Your task to perform on an android device: change the clock style Image 0: 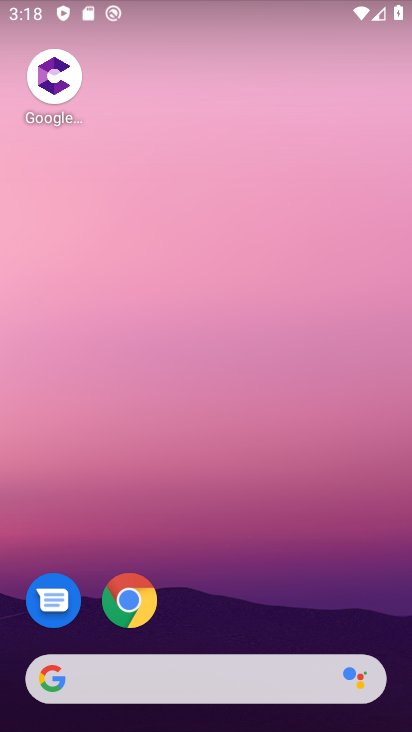
Step 0: drag from (236, 369) to (361, 11)
Your task to perform on an android device: change the clock style Image 1: 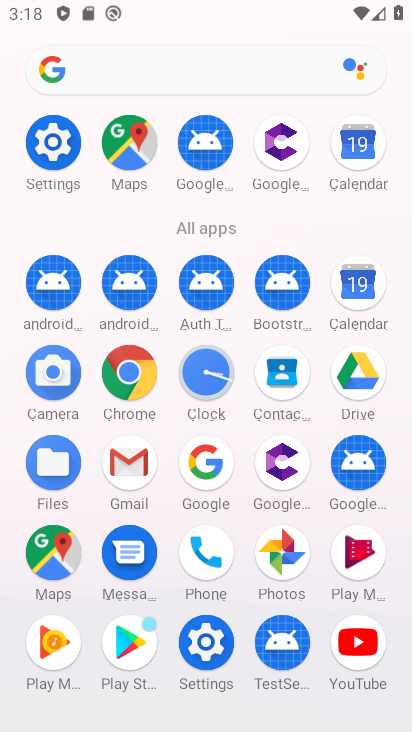
Step 1: click (205, 359)
Your task to perform on an android device: change the clock style Image 2: 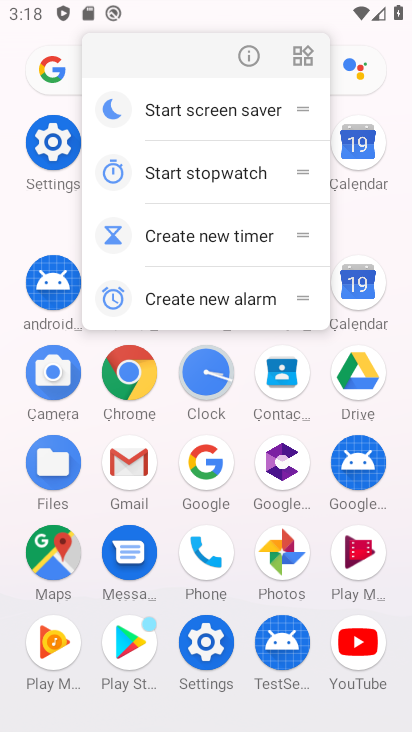
Step 2: click (197, 383)
Your task to perform on an android device: change the clock style Image 3: 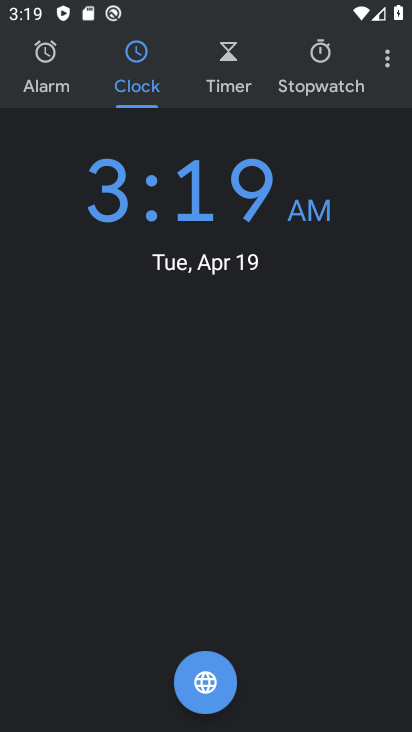
Step 3: click (385, 61)
Your task to perform on an android device: change the clock style Image 4: 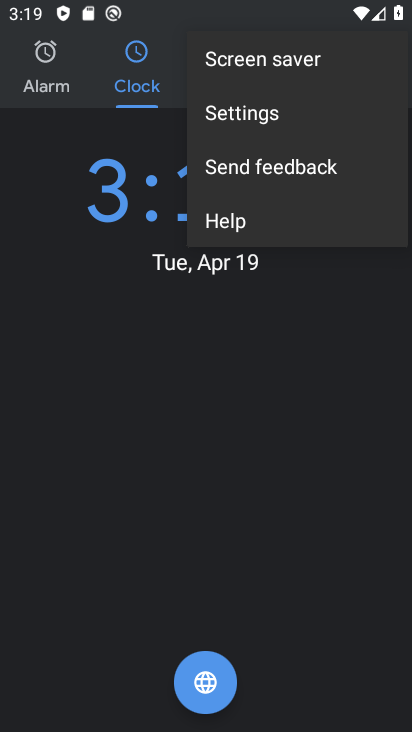
Step 4: click (280, 124)
Your task to perform on an android device: change the clock style Image 5: 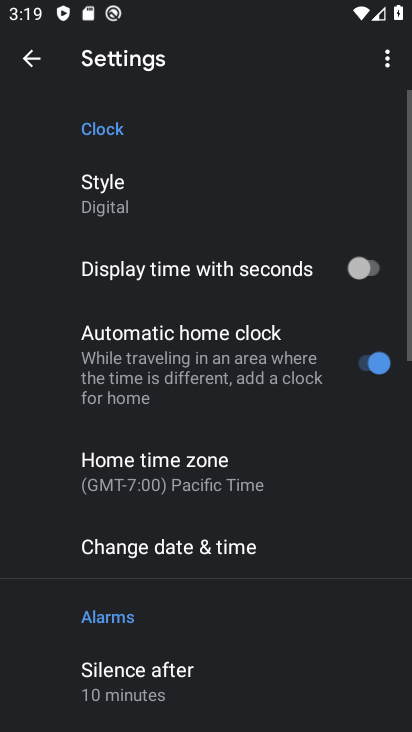
Step 5: click (125, 207)
Your task to perform on an android device: change the clock style Image 6: 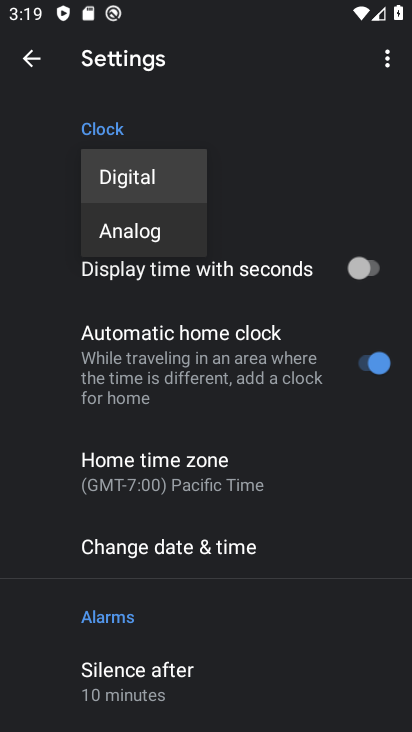
Step 6: click (137, 234)
Your task to perform on an android device: change the clock style Image 7: 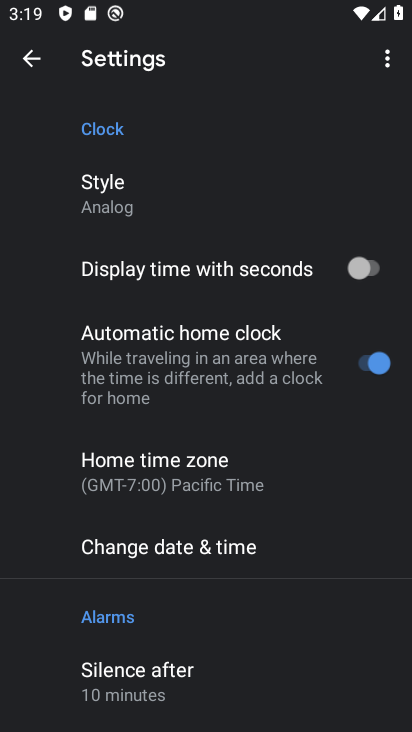
Step 7: task complete